Your task to perform on an android device: Add macbook to the cart on ebay Image 0: 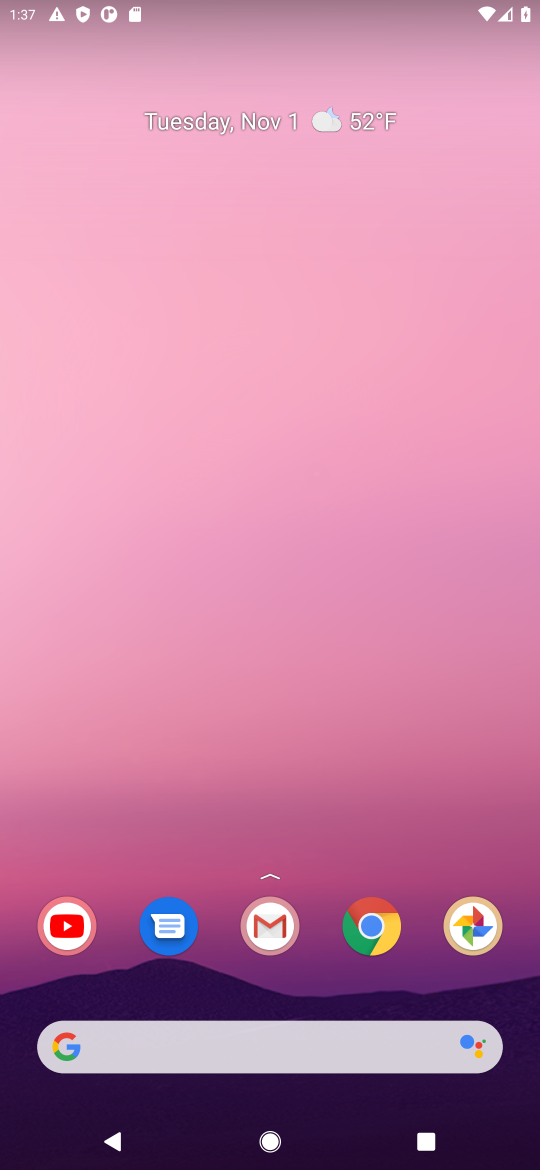
Step 0: click (369, 925)
Your task to perform on an android device: Add macbook to the cart on ebay Image 1: 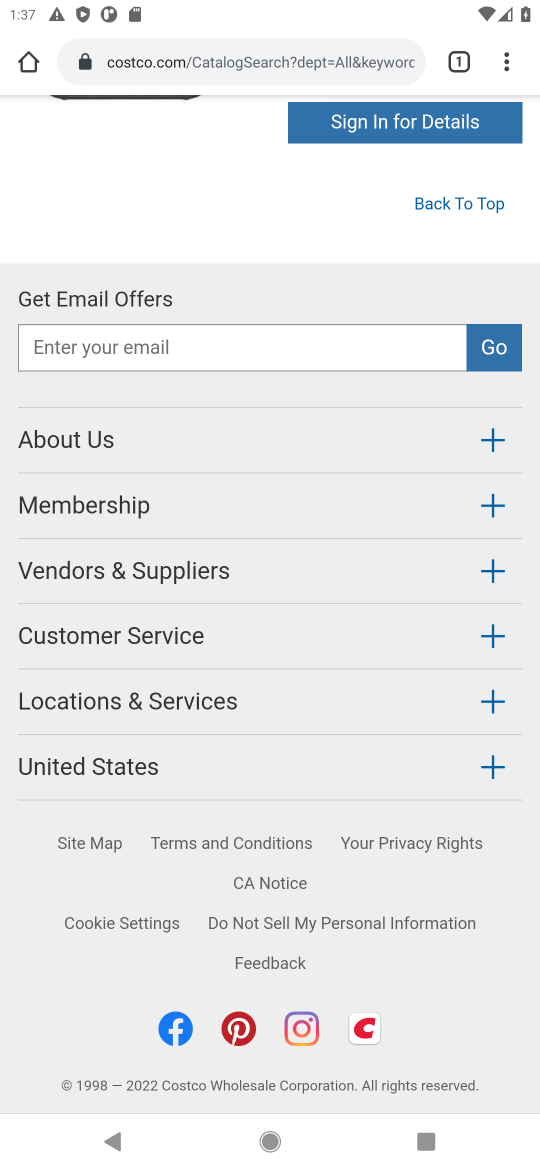
Step 1: click (250, 65)
Your task to perform on an android device: Add macbook to the cart on ebay Image 2: 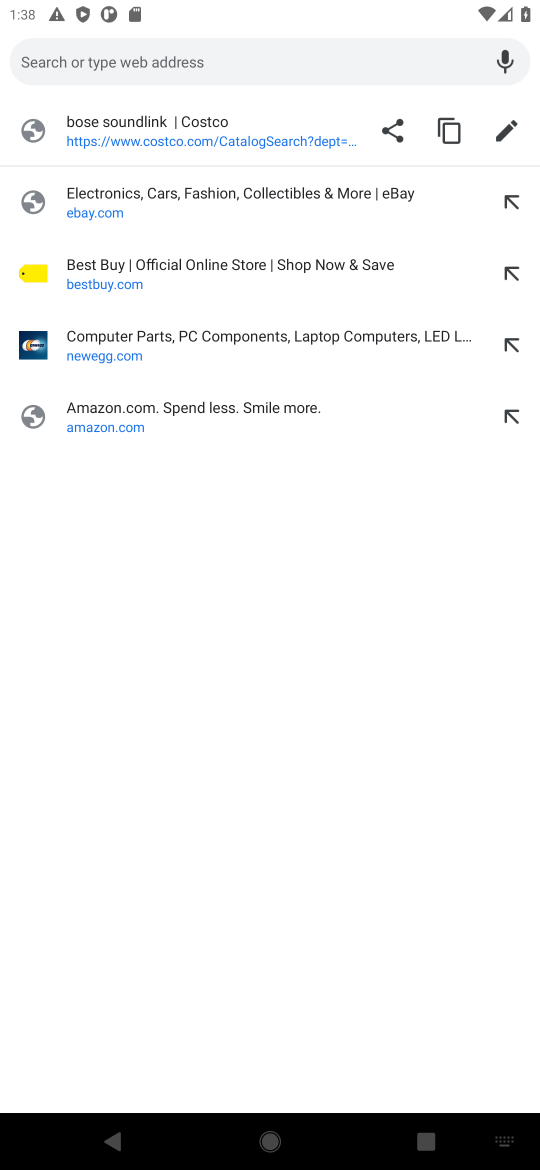
Step 2: type "ebay"
Your task to perform on an android device: Add macbook to the cart on ebay Image 3: 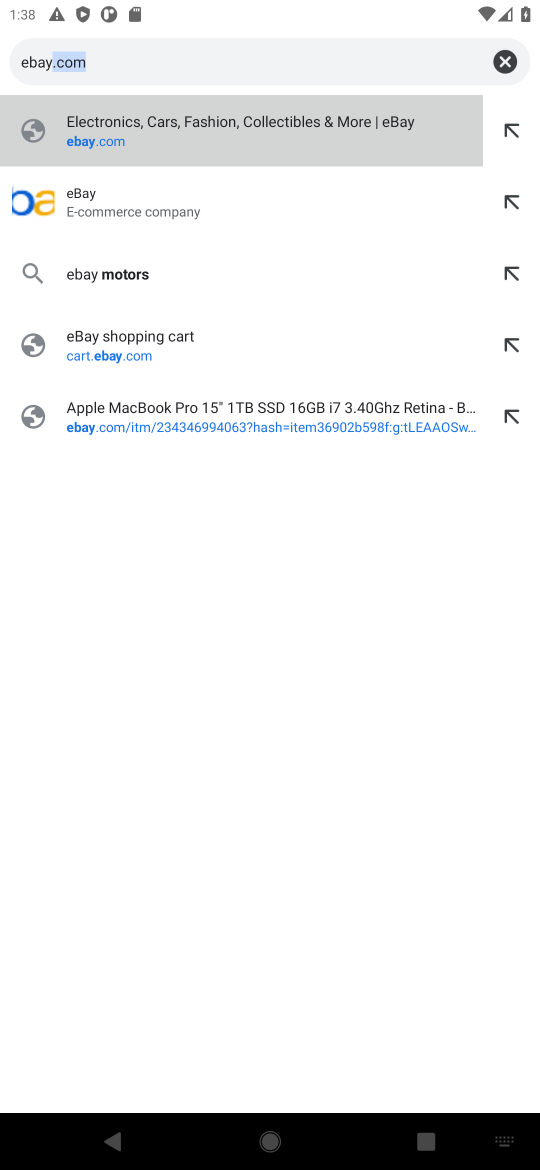
Step 3: press enter
Your task to perform on an android device: Add macbook to the cart on ebay Image 4: 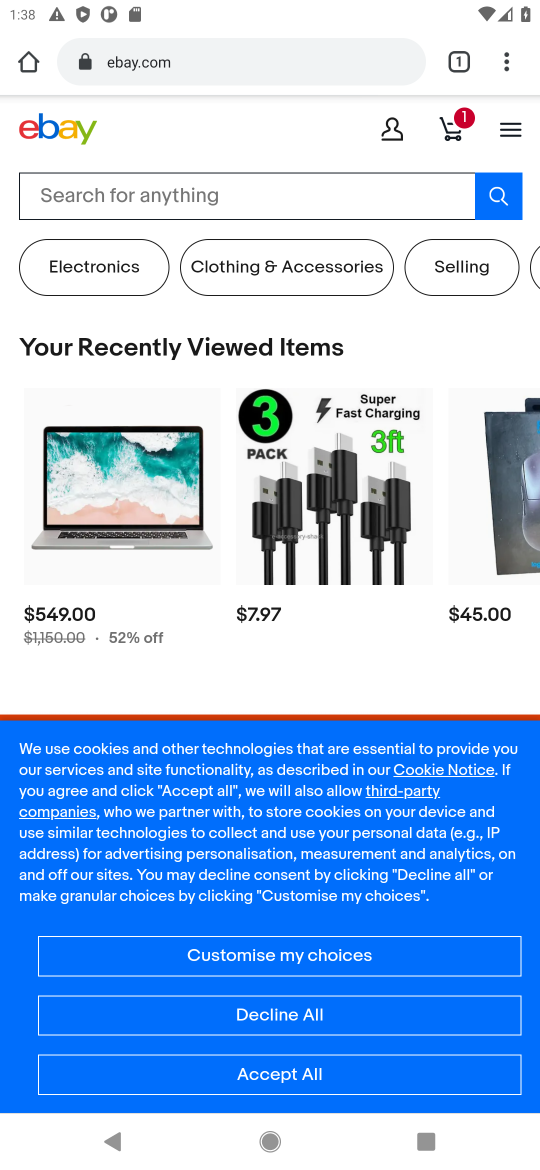
Step 4: click (295, 191)
Your task to perform on an android device: Add macbook to the cart on ebay Image 5: 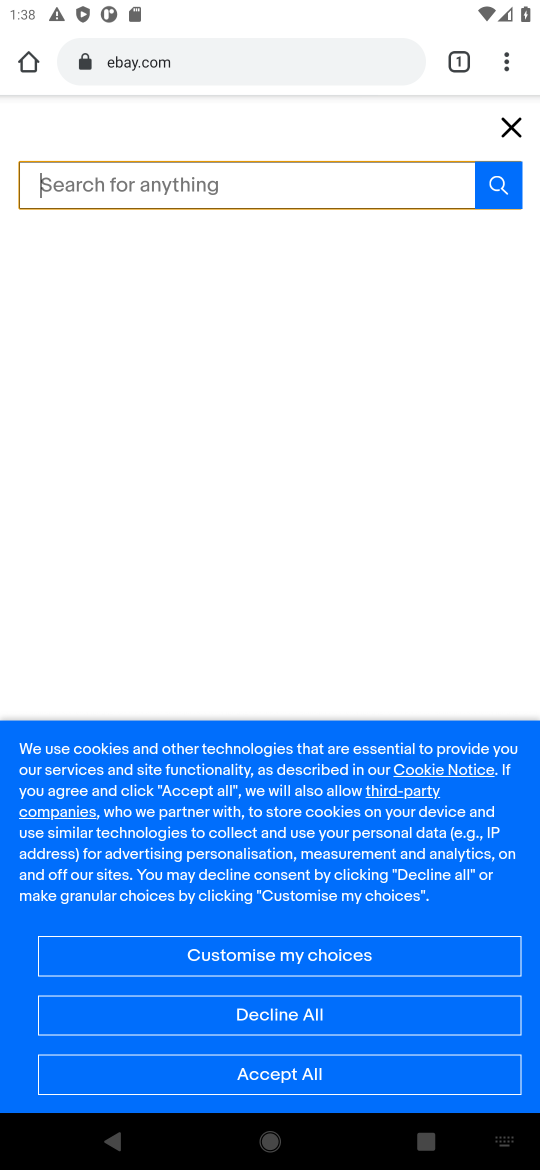
Step 5: type "macbook"
Your task to perform on an android device: Add macbook to the cart on ebay Image 6: 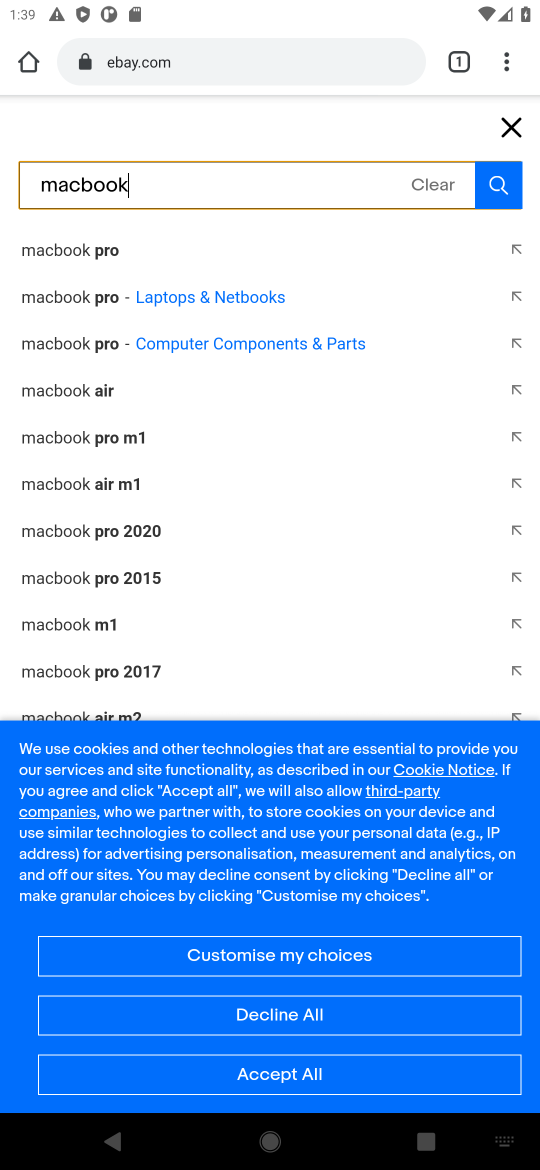
Step 6: press enter
Your task to perform on an android device: Add macbook to the cart on ebay Image 7: 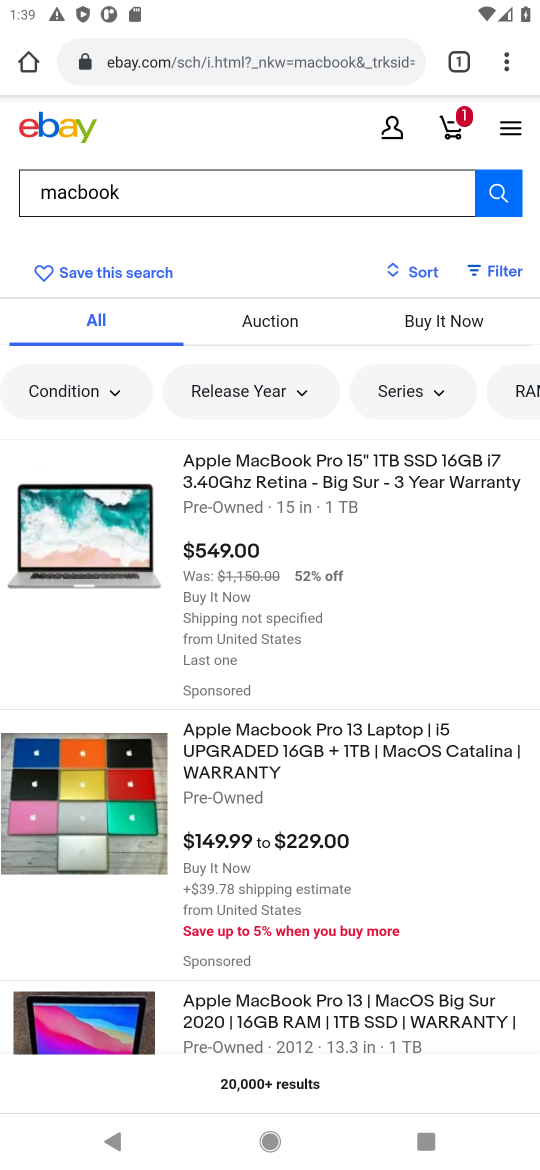
Step 7: click (321, 478)
Your task to perform on an android device: Add macbook to the cart on ebay Image 8: 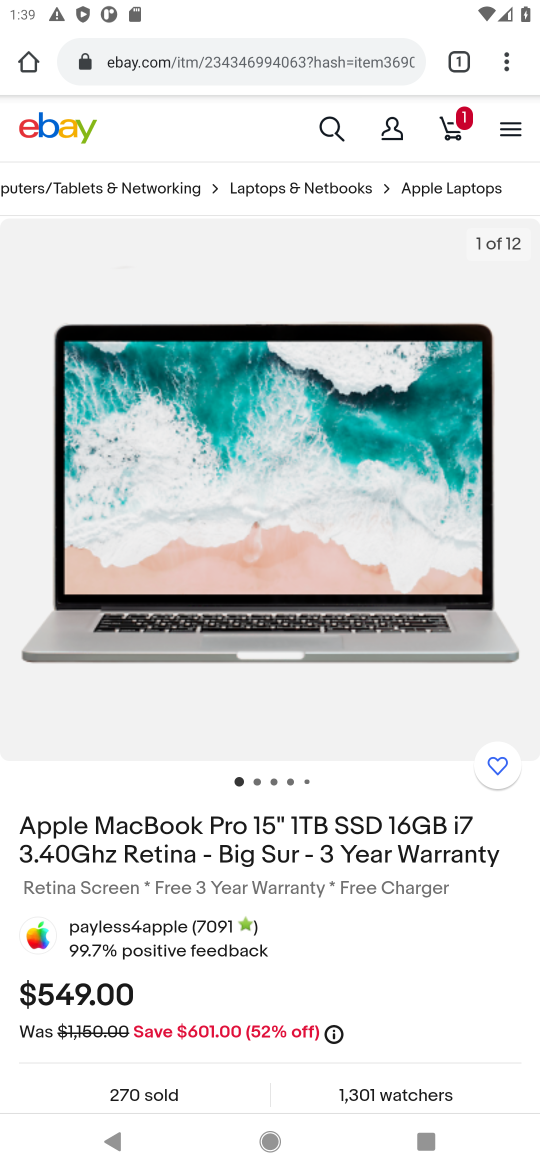
Step 8: drag from (345, 970) to (295, 144)
Your task to perform on an android device: Add macbook to the cart on ebay Image 9: 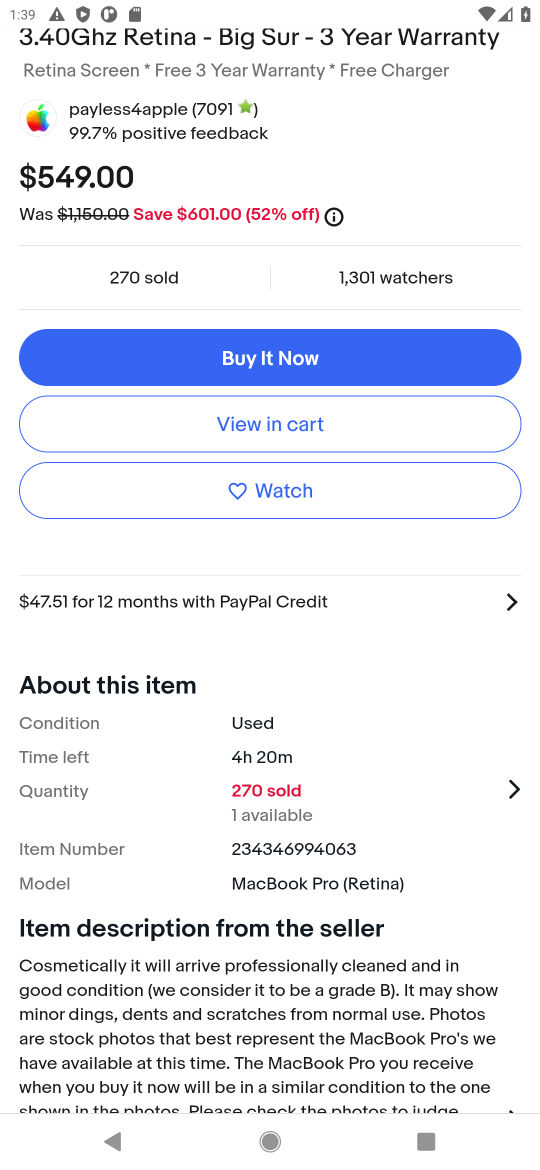
Step 9: click (253, 435)
Your task to perform on an android device: Add macbook to the cart on ebay Image 10: 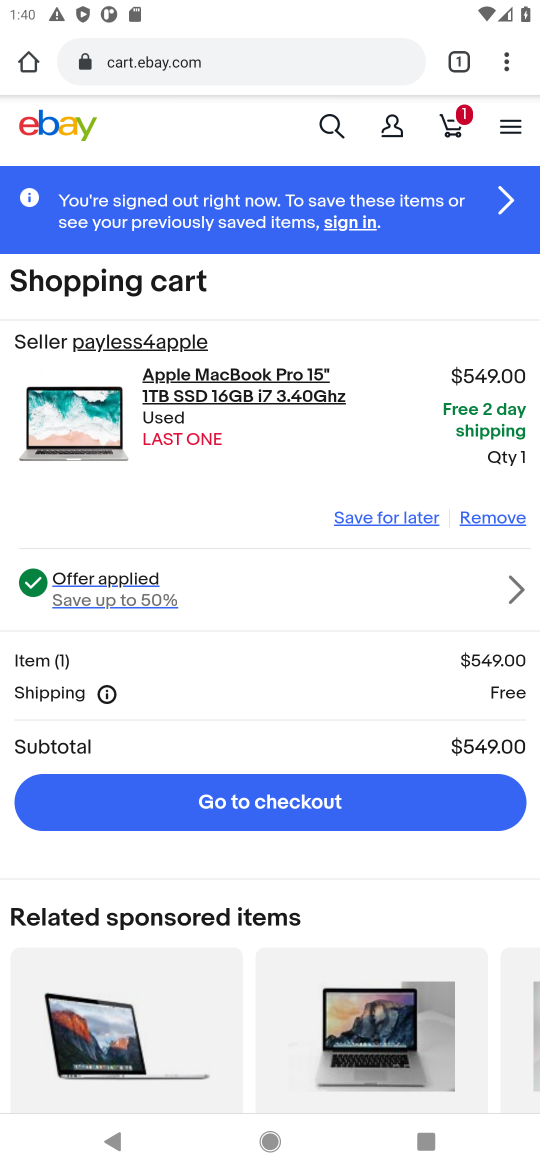
Step 10: click (327, 807)
Your task to perform on an android device: Add macbook to the cart on ebay Image 11: 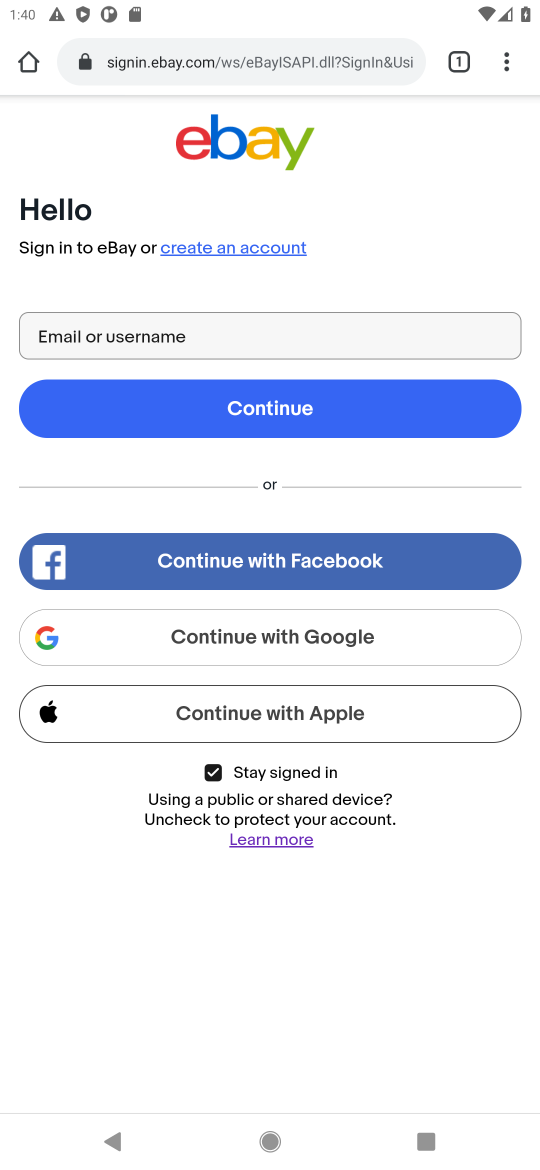
Step 11: task complete